Your task to perform on an android device: star an email in the gmail app Image 0: 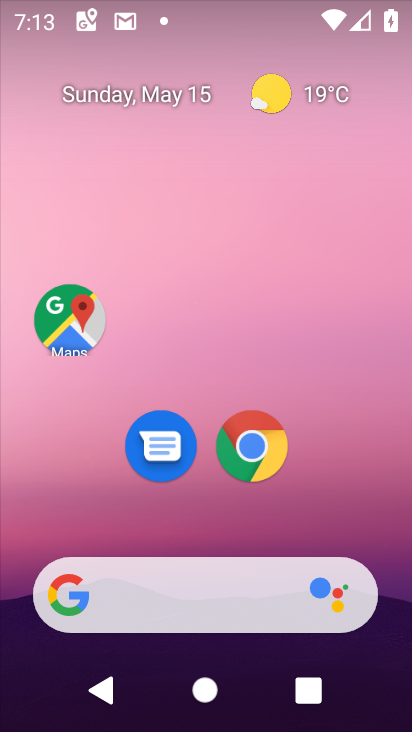
Step 0: drag from (254, 641) to (179, 255)
Your task to perform on an android device: star an email in the gmail app Image 1: 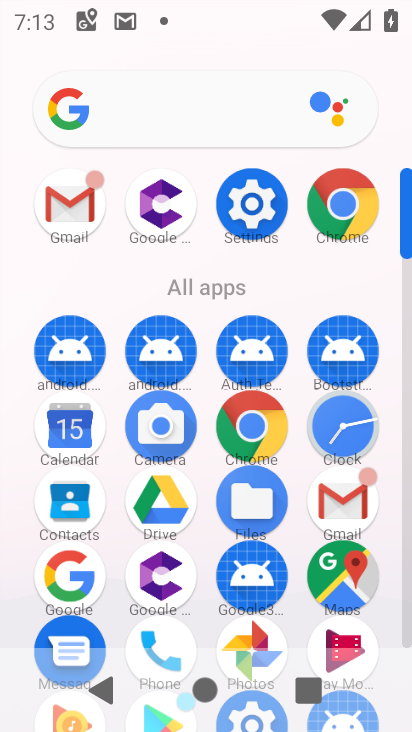
Step 1: click (346, 499)
Your task to perform on an android device: star an email in the gmail app Image 2: 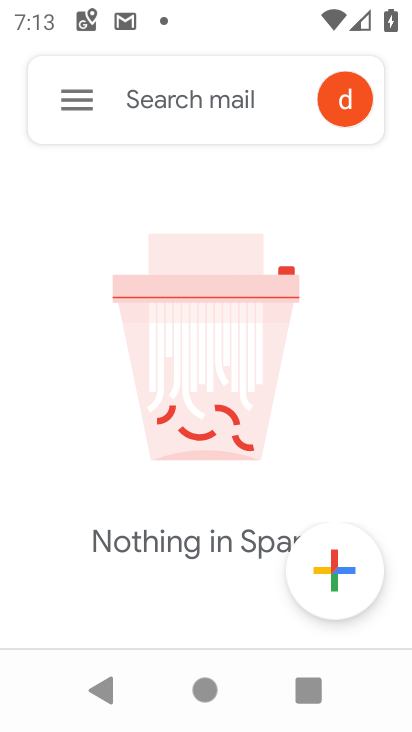
Step 2: click (62, 102)
Your task to perform on an android device: star an email in the gmail app Image 3: 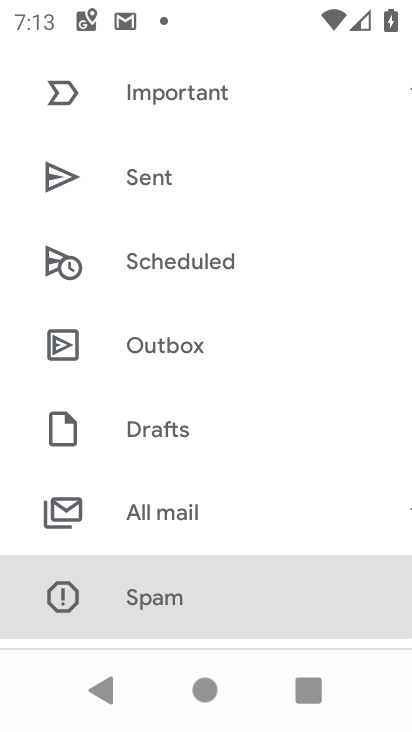
Step 3: drag from (166, 290) to (203, 502)
Your task to perform on an android device: star an email in the gmail app Image 4: 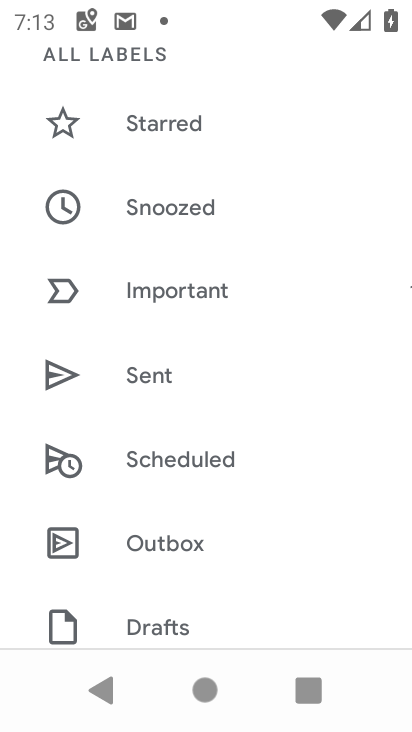
Step 4: click (155, 130)
Your task to perform on an android device: star an email in the gmail app Image 5: 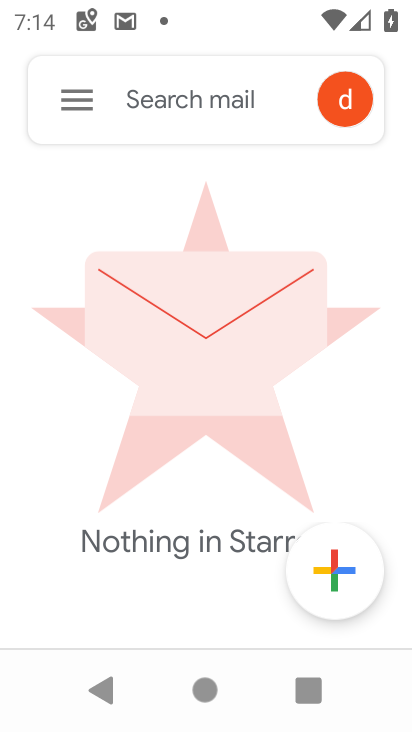
Step 5: task complete